Your task to perform on an android device: Show me popular games on the Play Store Image 0: 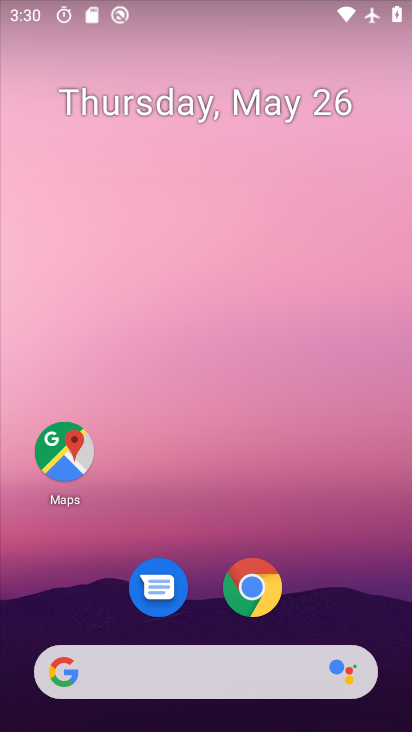
Step 0: drag from (286, 717) to (182, 62)
Your task to perform on an android device: Show me popular games on the Play Store Image 1: 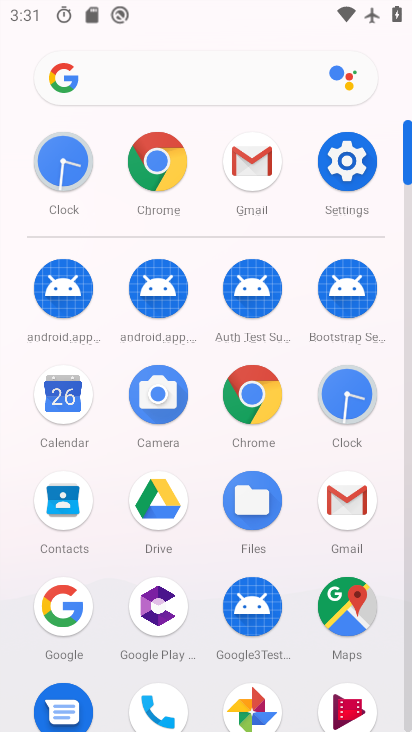
Step 1: drag from (206, 410) to (271, 11)
Your task to perform on an android device: Show me popular games on the Play Store Image 2: 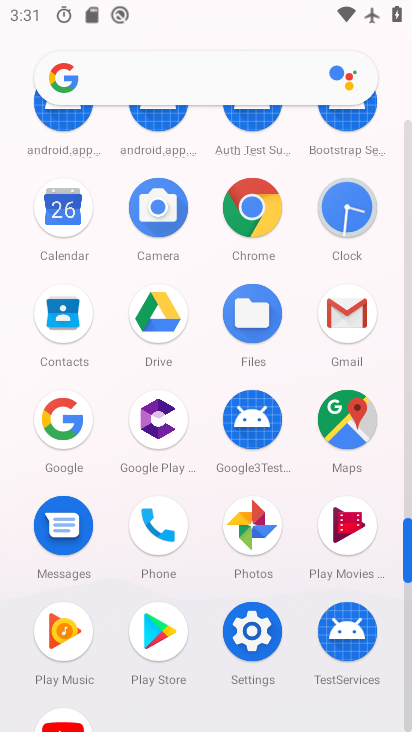
Step 2: drag from (197, 368) to (211, 89)
Your task to perform on an android device: Show me popular games on the Play Store Image 3: 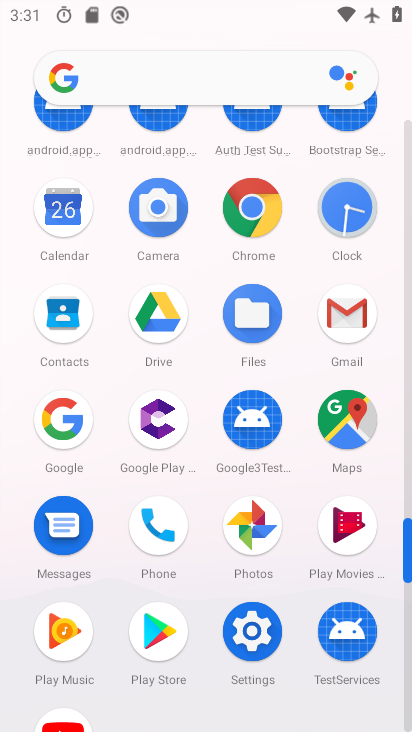
Step 3: click (165, 640)
Your task to perform on an android device: Show me popular games on the Play Store Image 4: 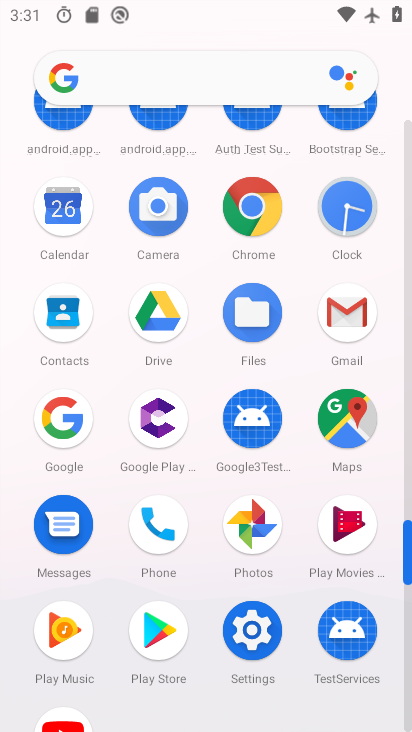
Step 4: click (161, 627)
Your task to perform on an android device: Show me popular games on the Play Store Image 5: 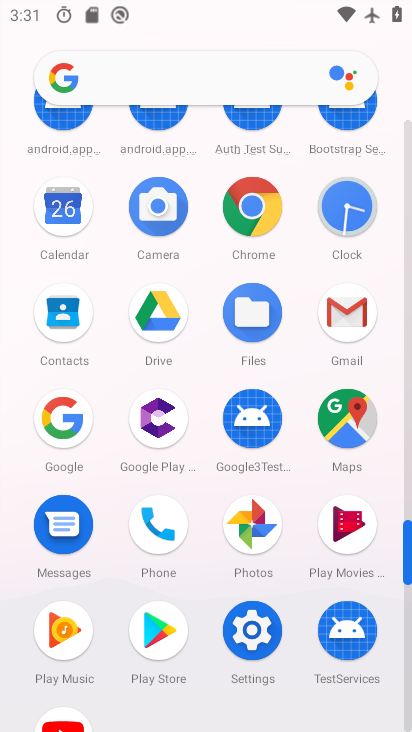
Step 5: click (164, 627)
Your task to perform on an android device: Show me popular games on the Play Store Image 6: 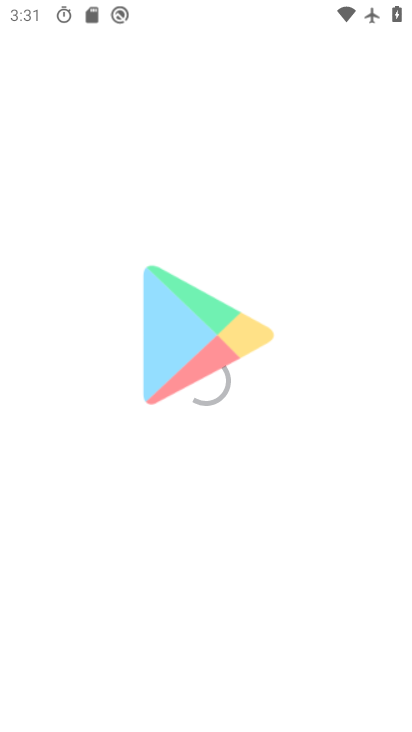
Step 6: click (166, 628)
Your task to perform on an android device: Show me popular games on the Play Store Image 7: 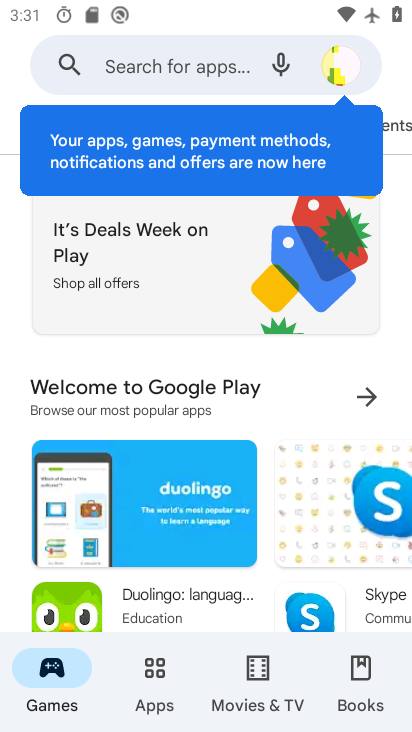
Step 7: press back button
Your task to perform on an android device: Show me popular games on the Play Store Image 8: 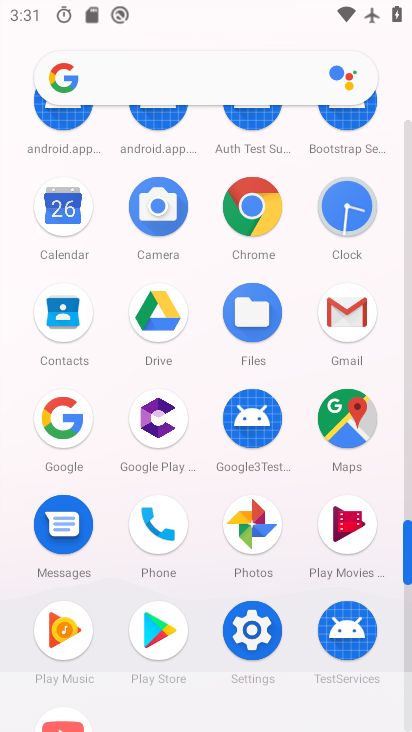
Step 8: click (149, 637)
Your task to perform on an android device: Show me popular games on the Play Store Image 9: 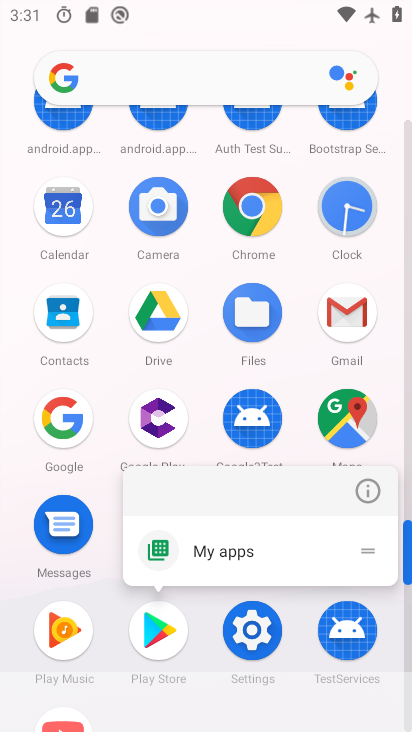
Step 9: click (165, 623)
Your task to perform on an android device: Show me popular games on the Play Store Image 10: 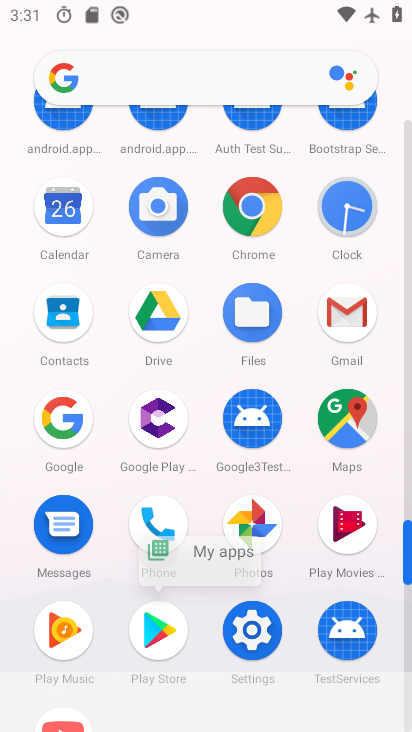
Step 10: click (164, 626)
Your task to perform on an android device: Show me popular games on the Play Store Image 11: 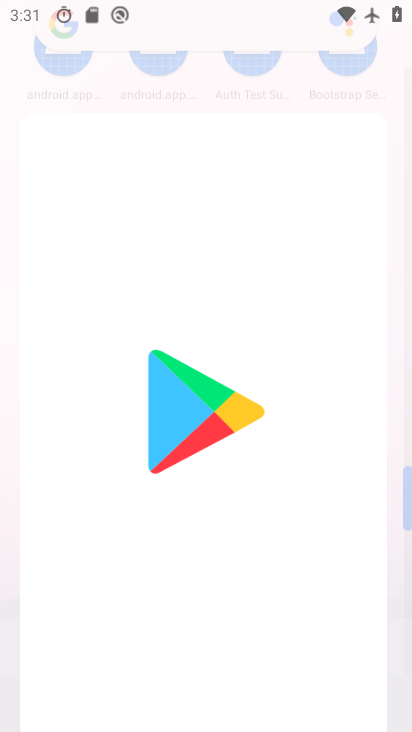
Step 11: click (170, 635)
Your task to perform on an android device: Show me popular games on the Play Store Image 12: 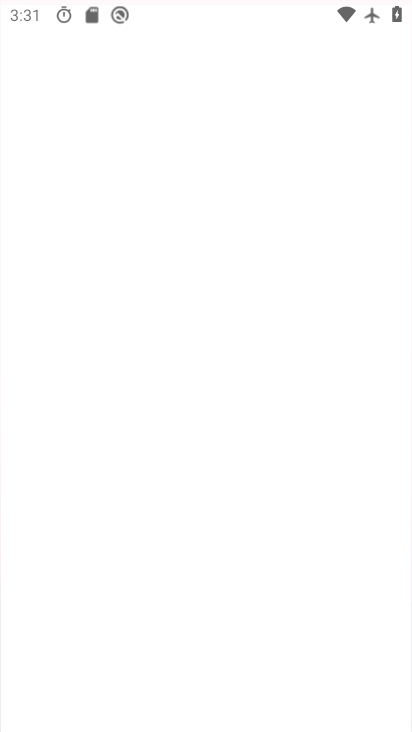
Step 12: click (173, 631)
Your task to perform on an android device: Show me popular games on the Play Store Image 13: 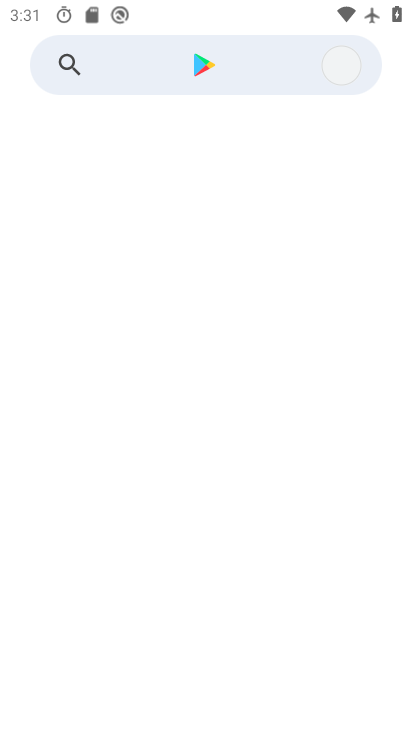
Step 13: click (150, 618)
Your task to perform on an android device: Show me popular games on the Play Store Image 14: 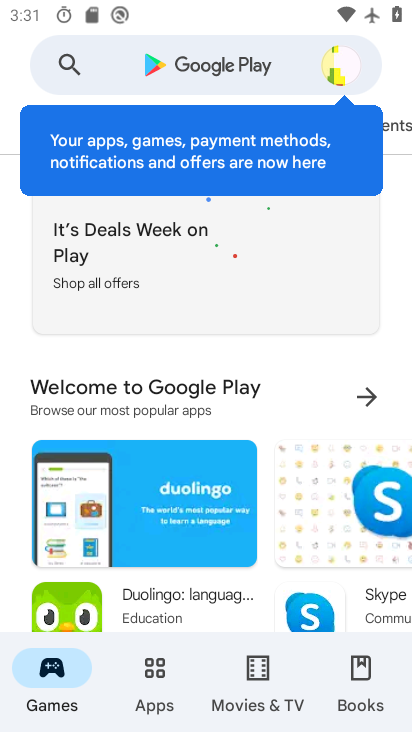
Step 14: click (111, 62)
Your task to perform on an android device: Show me popular games on the Play Store Image 15: 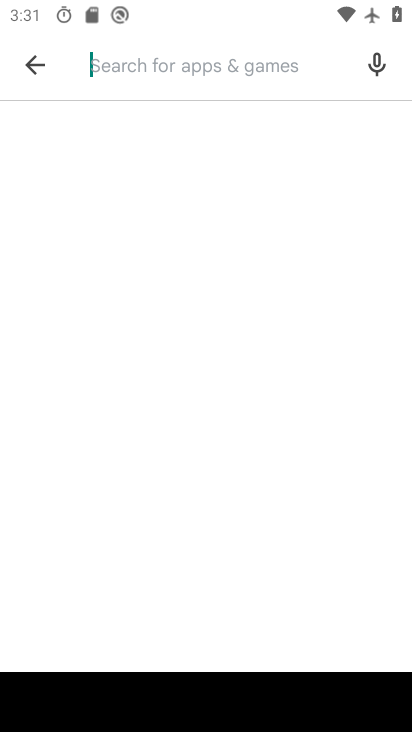
Step 15: type "popular games"
Your task to perform on an android device: Show me popular games on the Play Store Image 16: 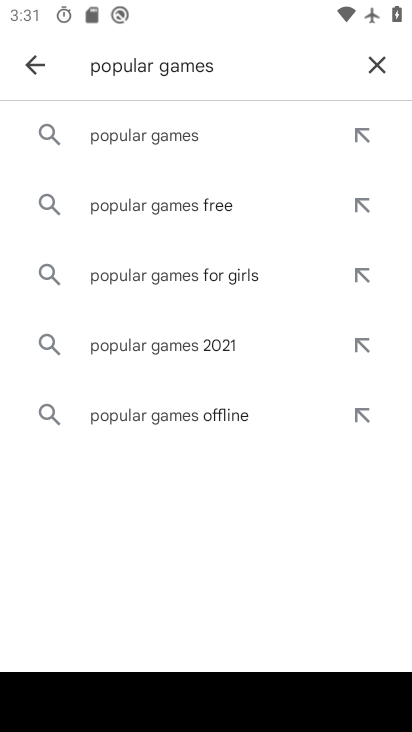
Step 16: click (132, 128)
Your task to perform on an android device: Show me popular games on the Play Store Image 17: 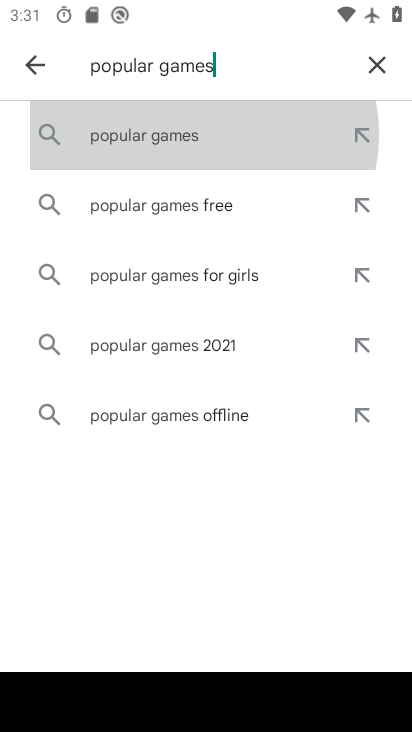
Step 17: click (133, 127)
Your task to perform on an android device: Show me popular games on the Play Store Image 18: 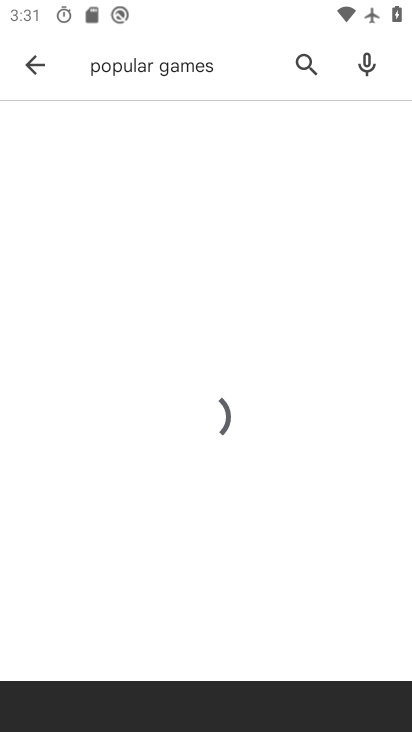
Step 18: click (145, 141)
Your task to perform on an android device: Show me popular games on the Play Store Image 19: 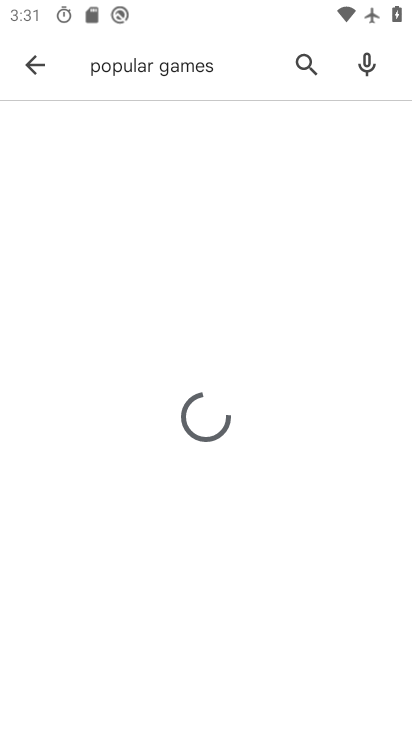
Step 19: click (145, 141)
Your task to perform on an android device: Show me popular games on the Play Store Image 20: 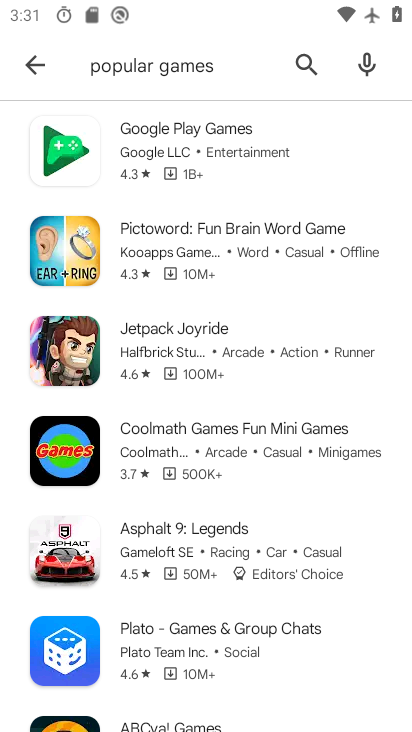
Step 20: task complete